Your task to perform on an android device: see tabs open on other devices in the chrome app Image 0: 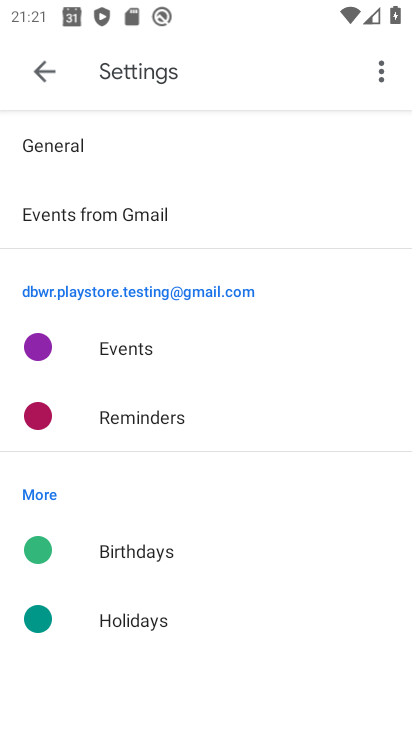
Step 0: press home button
Your task to perform on an android device: see tabs open on other devices in the chrome app Image 1: 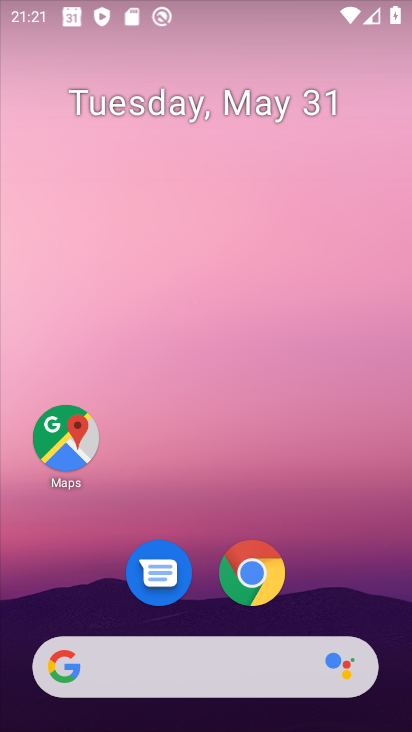
Step 1: drag from (343, 505) to (325, 123)
Your task to perform on an android device: see tabs open on other devices in the chrome app Image 2: 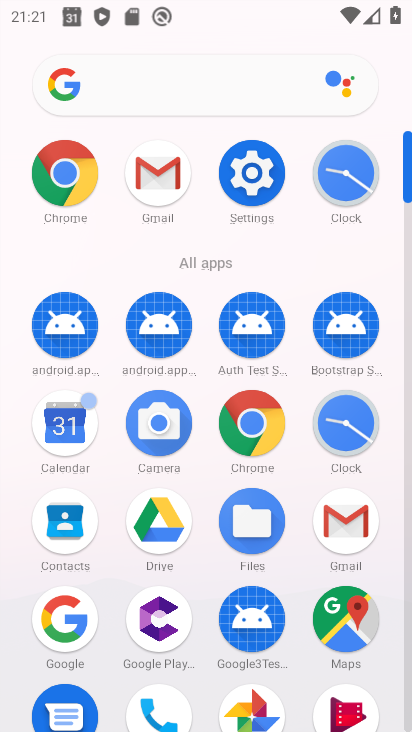
Step 2: click (251, 435)
Your task to perform on an android device: see tabs open on other devices in the chrome app Image 3: 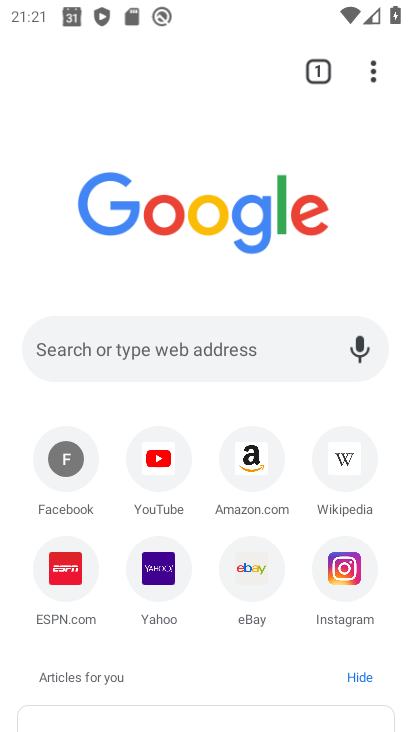
Step 3: click (378, 68)
Your task to perform on an android device: see tabs open on other devices in the chrome app Image 4: 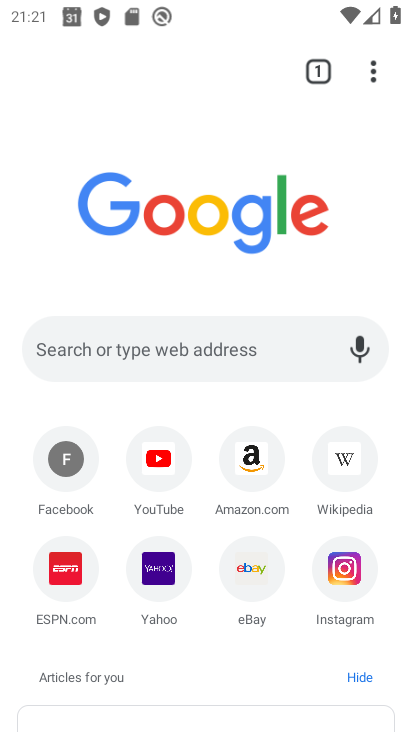
Step 4: task complete